Your task to perform on an android device: empty trash in the gmail app Image 0: 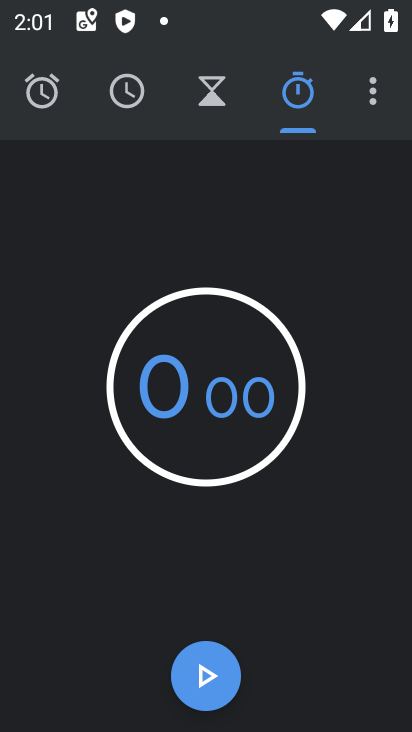
Step 0: drag from (242, 586) to (225, 354)
Your task to perform on an android device: empty trash in the gmail app Image 1: 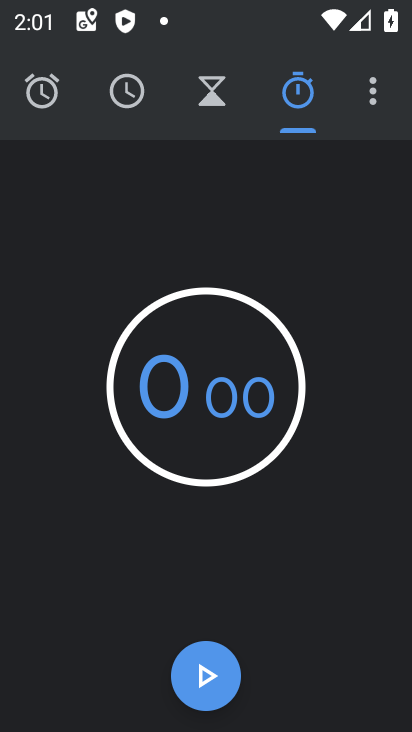
Step 1: press home button
Your task to perform on an android device: empty trash in the gmail app Image 2: 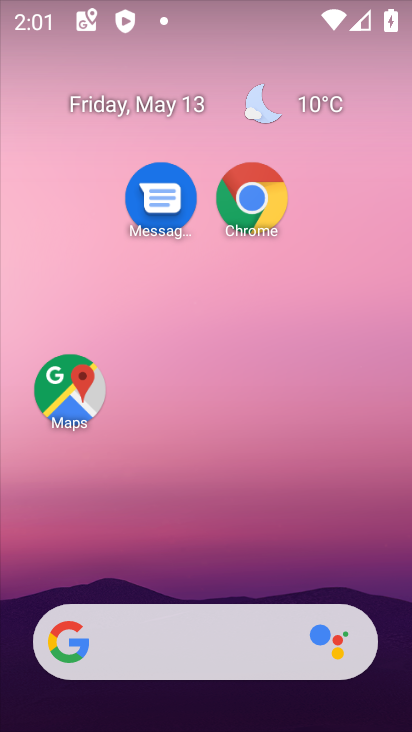
Step 2: drag from (238, 571) to (0, 703)
Your task to perform on an android device: empty trash in the gmail app Image 3: 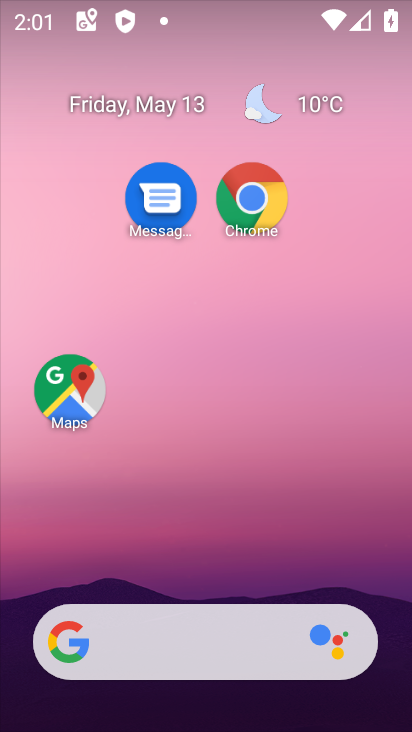
Step 3: drag from (235, 591) to (165, 1)
Your task to perform on an android device: empty trash in the gmail app Image 4: 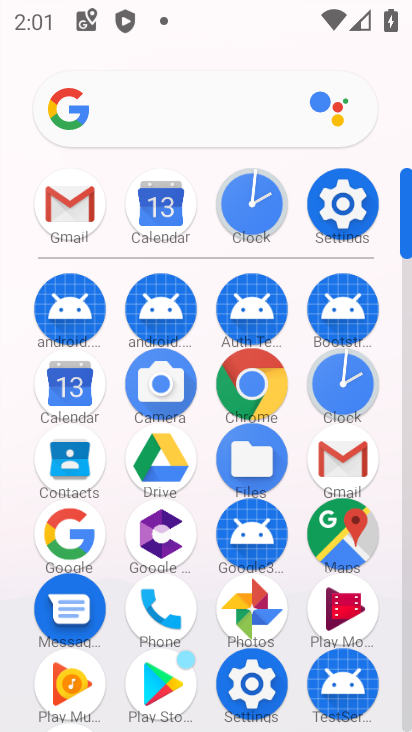
Step 4: click (354, 470)
Your task to perform on an android device: empty trash in the gmail app Image 5: 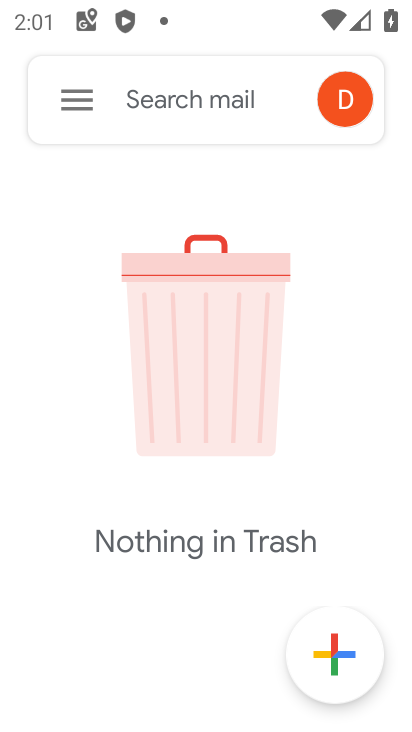
Step 5: click (71, 100)
Your task to perform on an android device: empty trash in the gmail app Image 6: 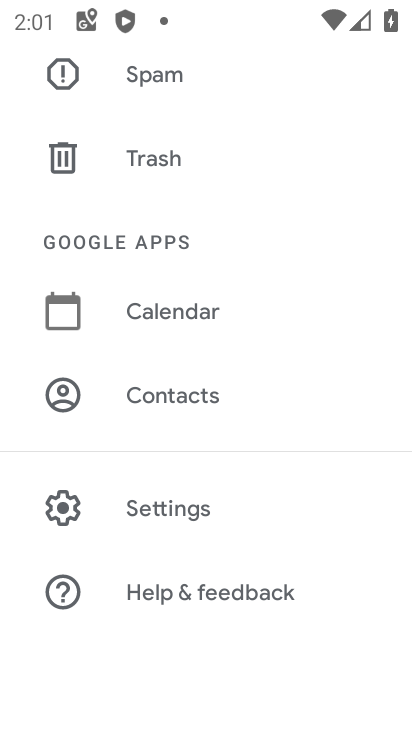
Step 6: click (137, 160)
Your task to perform on an android device: empty trash in the gmail app Image 7: 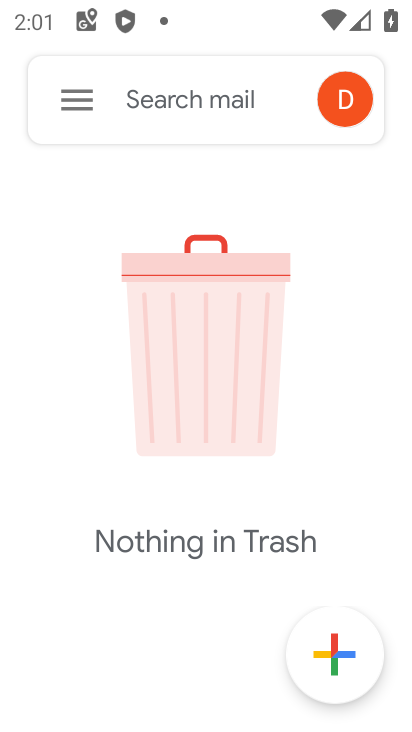
Step 7: task complete